Your task to perform on an android device: open a bookmark in the chrome app Image 0: 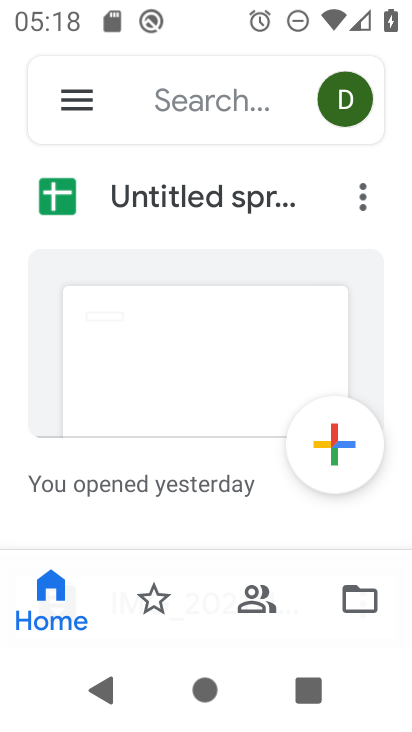
Step 0: press home button
Your task to perform on an android device: open a bookmark in the chrome app Image 1: 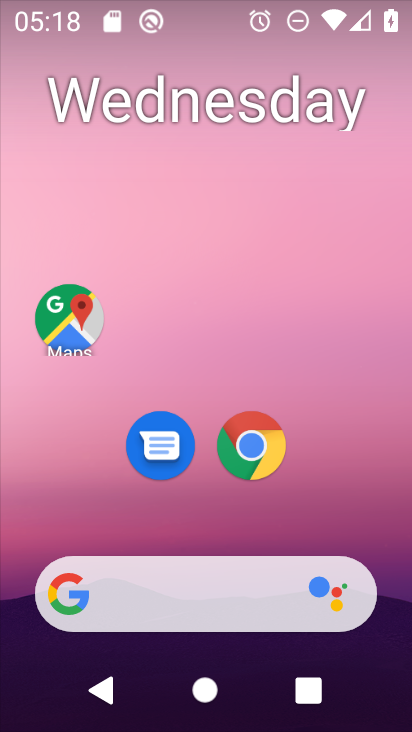
Step 1: click (262, 449)
Your task to perform on an android device: open a bookmark in the chrome app Image 2: 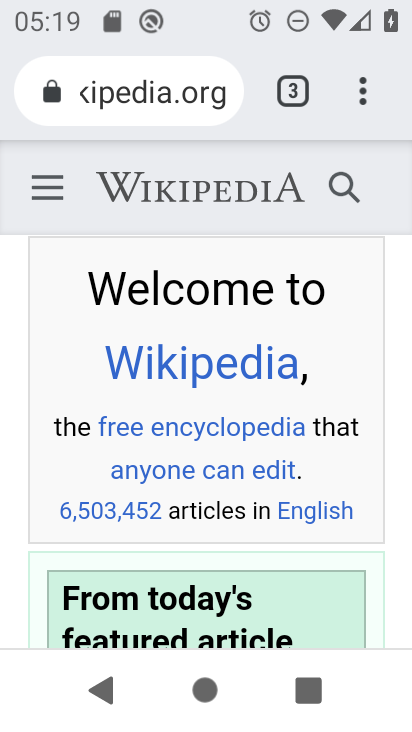
Step 2: click (381, 80)
Your task to perform on an android device: open a bookmark in the chrome app Image 3: 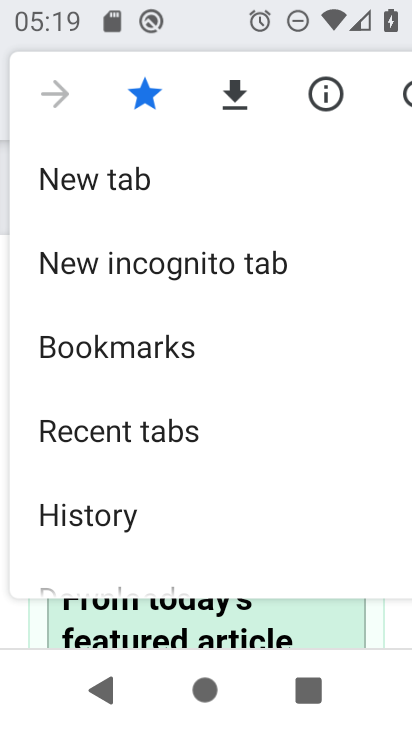
Step 3: click (79, 347)
Your task to perform on an android device: open a bookmark in the chrome app Image 4: 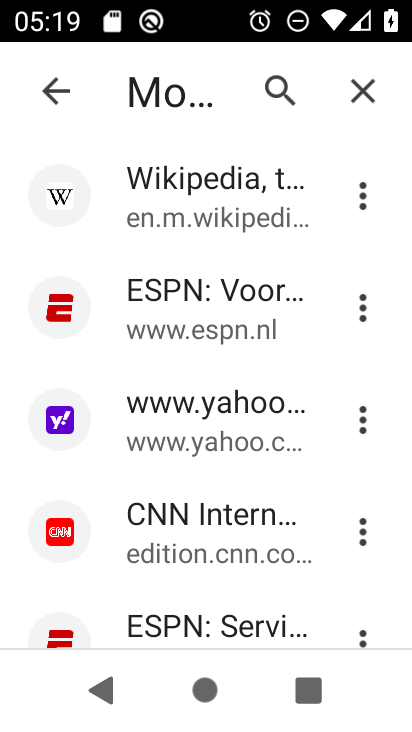
Step 4: click (79, 347)
Your task to perform on an android device: open a bookmark in the chrome app Image 5: 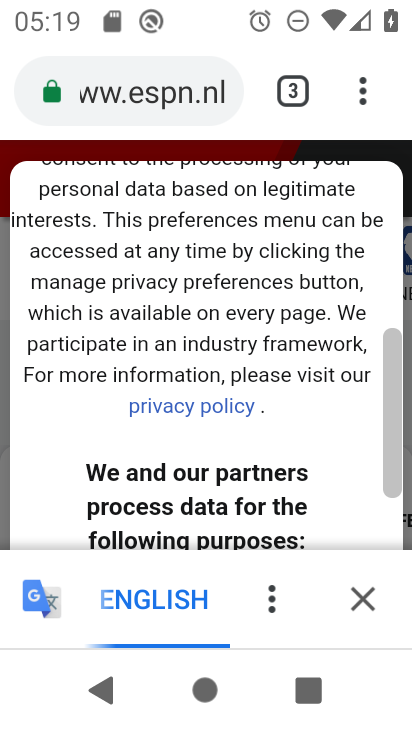
Step 5: task complete